Your task to perform on an android device: Check the news Image 0: 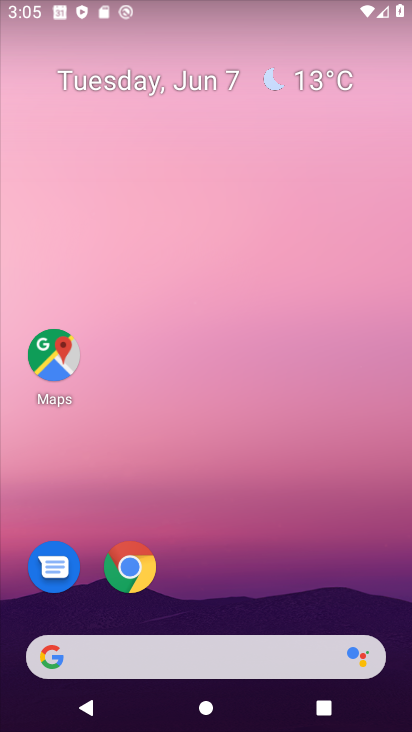
Step 0: press home button
Your task to perform on an android device: Check the news Image 1: 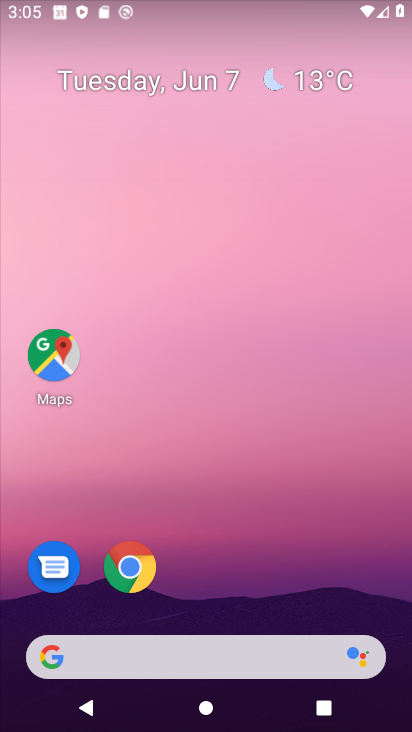
Step 1: drag from (303, 585) to (255, 1)
Your task to perform on an android device: Check the news Image 2: 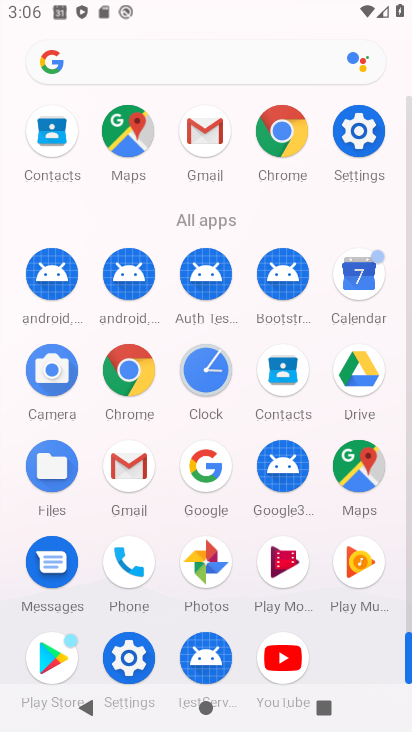
Step 2: click (122, 378)
Your task to perform on an android device: Check the news Image 3: 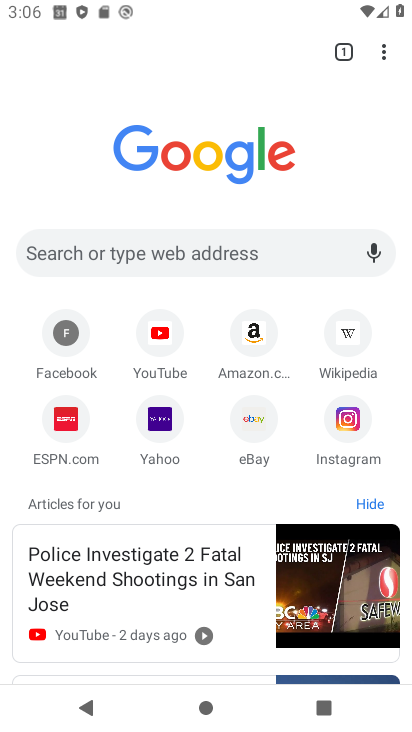
Step 3: click (81, 244)
Your task to perform on an android device: Check the news Image 4: 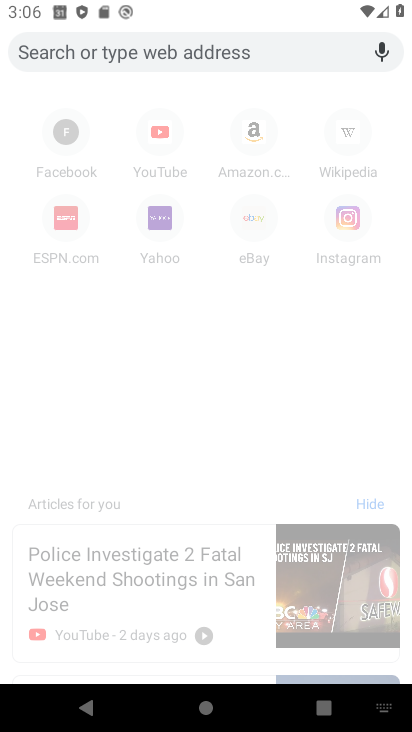
Step 4: type "news"
Your task to perform on an android device: Check the news Image 5: 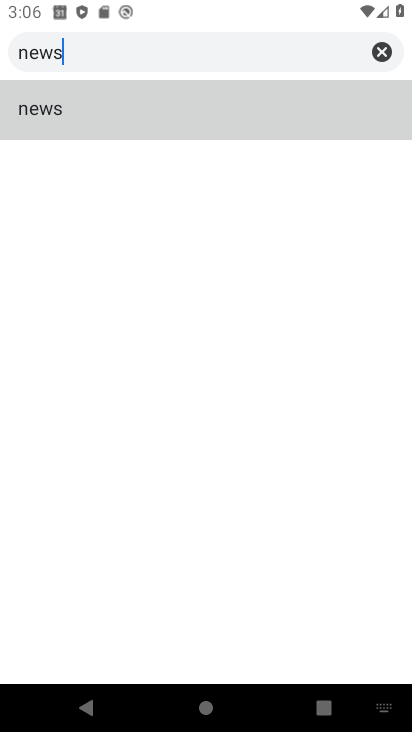
Step 5: type ""
Your task to perform on an android device: Check the news Image 6: 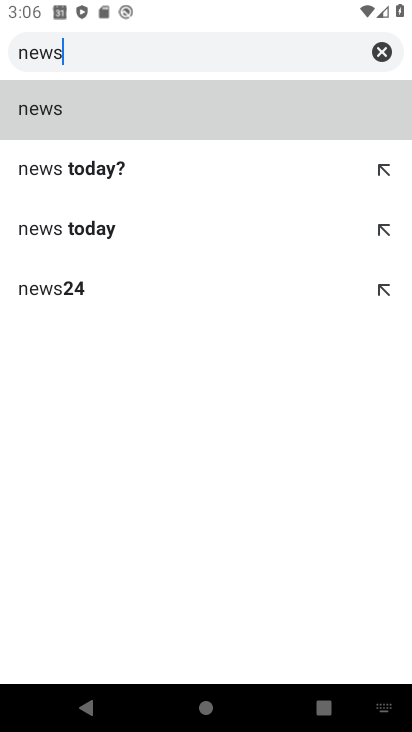
Step 6: click (143, 106)
Your task to perform on an android device: Check the news Image 7: 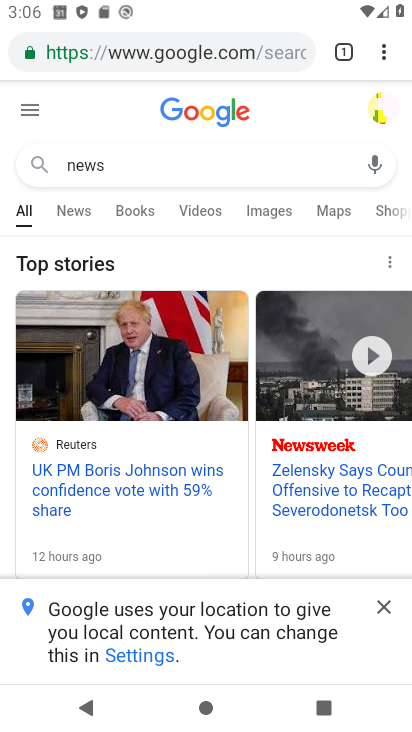
Step 7: task complete